Your task to perform on an android device: see tabs open on other devices in the chrome app Image 0: 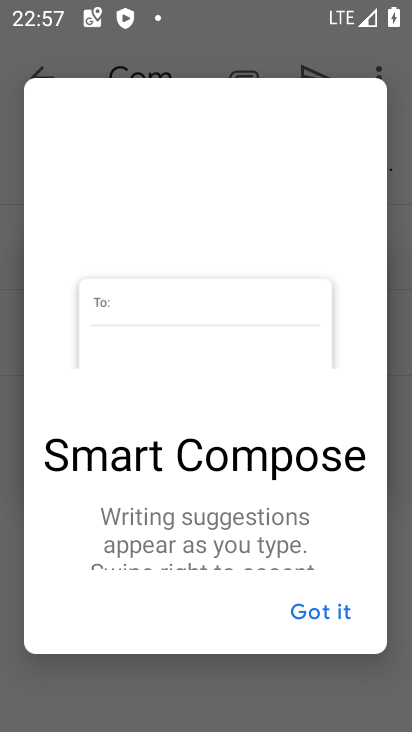
Step 0: press home button
Your task to perform on an android device: see tabs open on other devices in the chrome app Image 1: 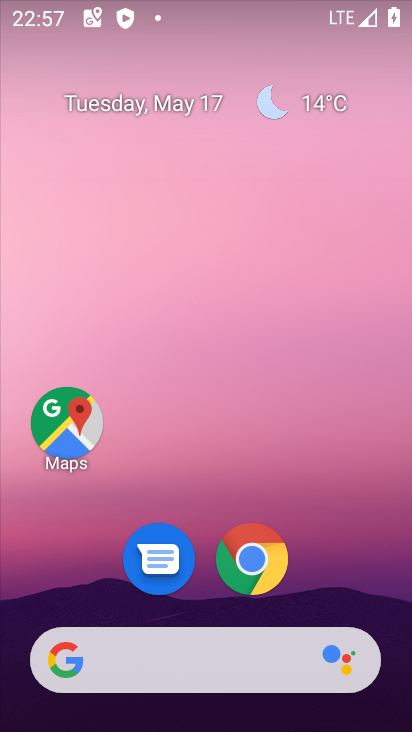
Step 1: click (251, 558)
Your task to perform on an android device: see tabs open on other devices in the chrome app Image 2: 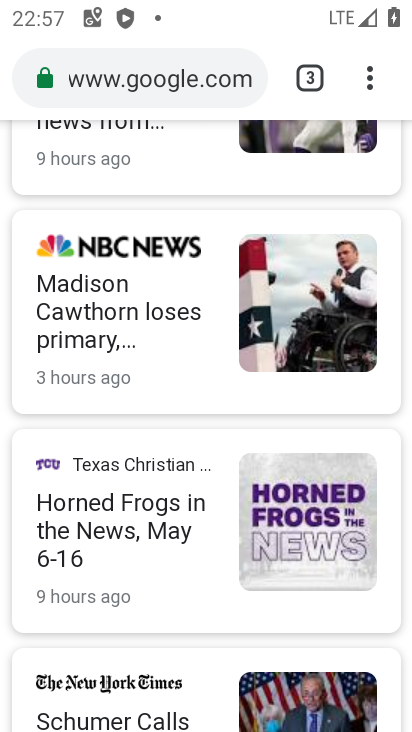
Step 2: task complete